Your task to perform on an android device: Open Google Maps and go to "Timeline" Image 0: 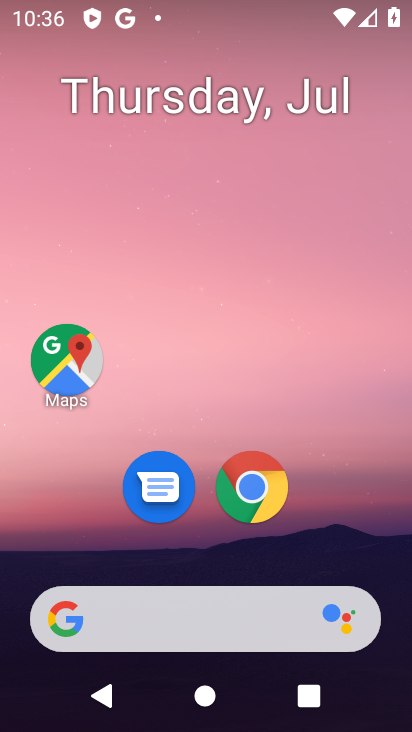
Step 0: drag from (184, 565) to (257, 14)
Your task to perform on an android device: Open Google Maps and go to "Timeline" Image 1: 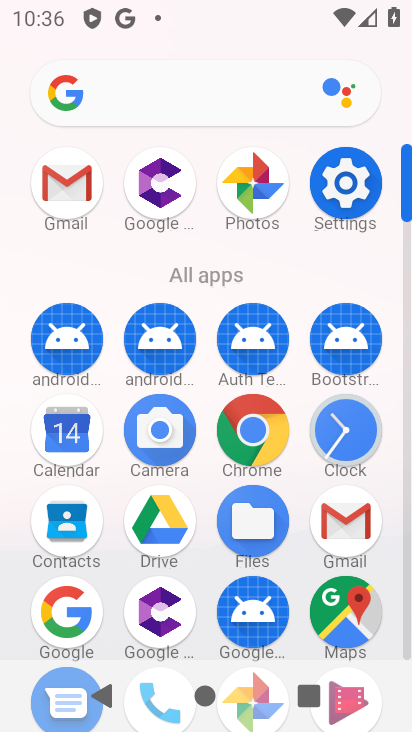
Step 1: drag from (215, 600) to (202, 220)
Your task to perform on an android device: Open Google Maps and go to "Timeline" Image 2: 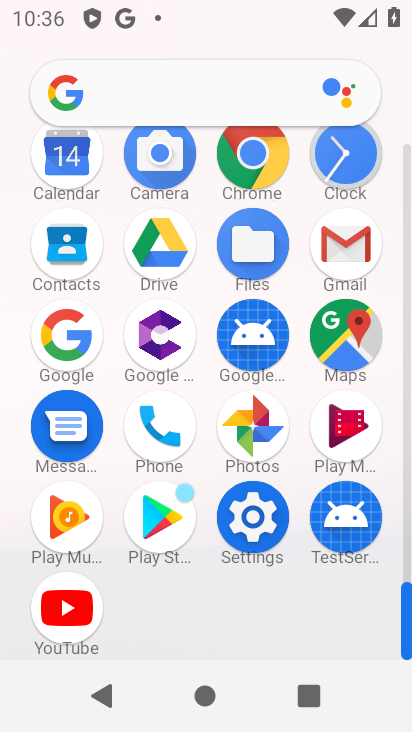
Step 2: click (367, 322)
Your task to perform on an android device: Open Google Maps and go to "Timeline" Image 3: 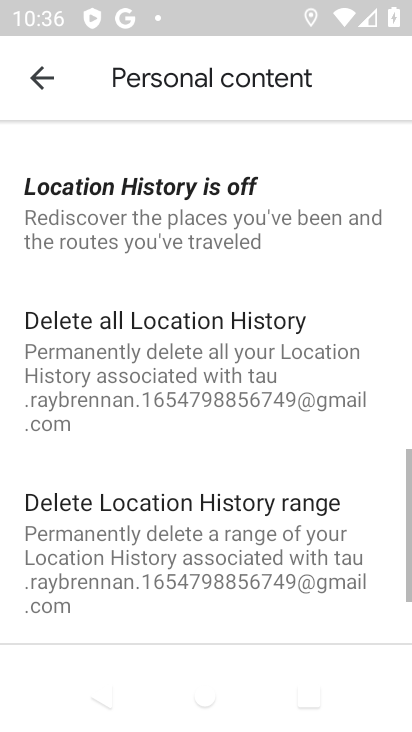
Step 3: click (42, 72)
Your task to perform on an android device: Open Google Maps and go to "Timeline" Image 4: 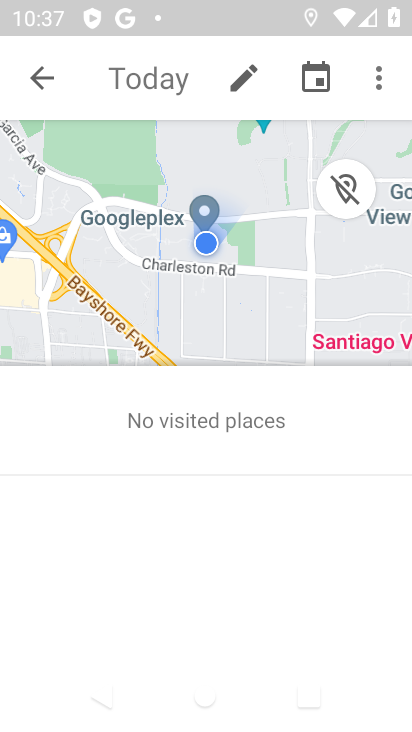
Step 4: click (35, 79)
Your task to perform on an android device: Open Google Maps and go to "Timeline" Image 5: 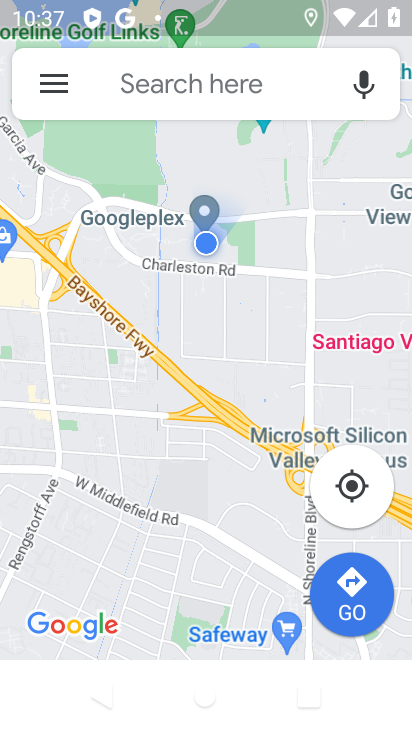
Step 5: click (67, 68)
Your task to perform on an android device: Open Google Maps and go to "Timeline" Image 6: 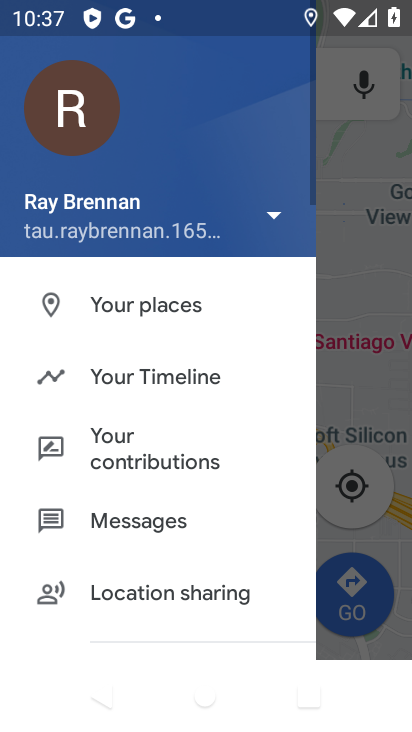
Step 6: click (183, 360)
Your task to perform on an android device: Open Google Maps and go to "Timeline" Image 7: 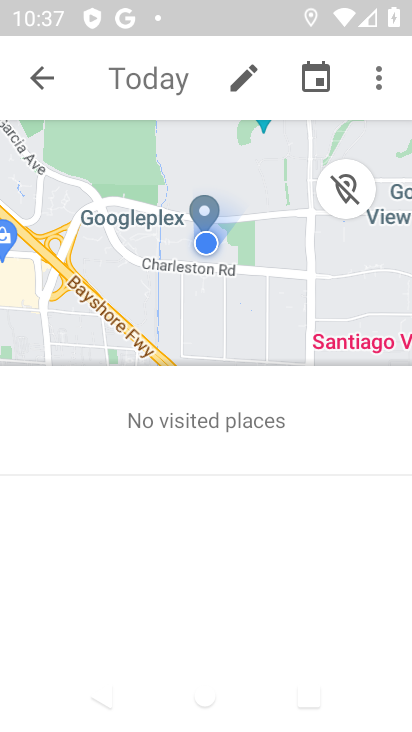
Step 7: click (39, 65)
Your task to perform on an android device: Open Google Maps and go to "Timeline" Image 8: 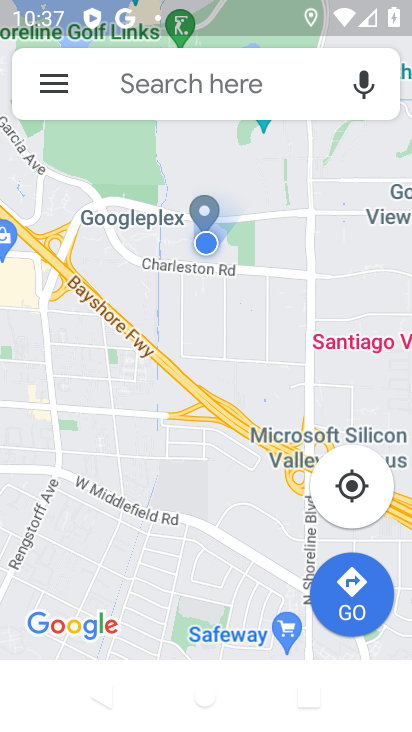
Step 8: click (46, 66)
Your task to perform on an android device: Open Google Maps and go to "Timeline" Image 9: 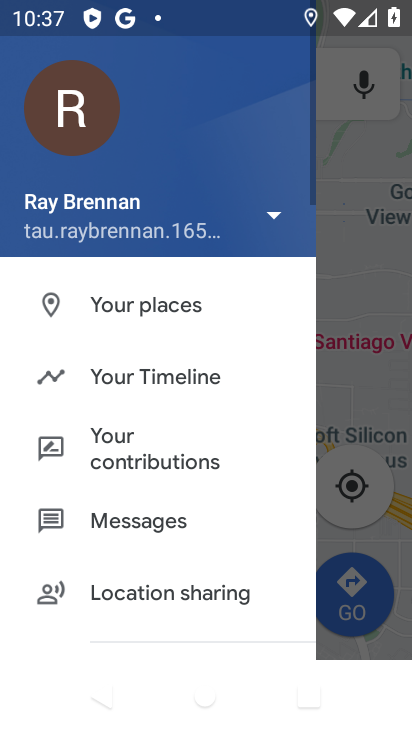
Step 9: click (134, 366)
Your task to perform on an android device: Open Google Maps and go to "Timeline" Image 10: 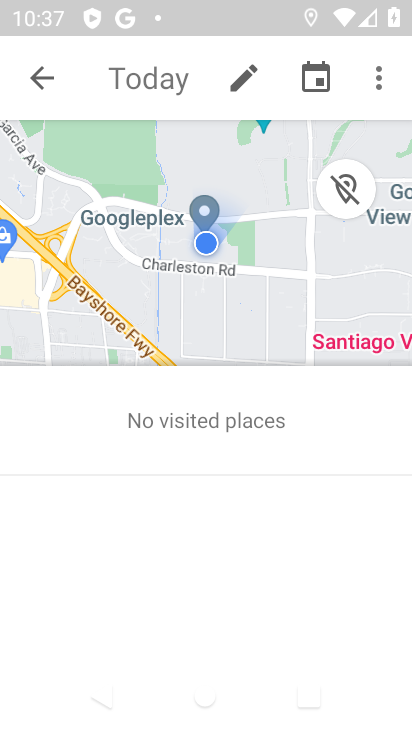
Step 10: task complete